Your task to perform on an android device: Search for "alienware aurora" on ebay.com, select the first entry, add it to the cart, then select checkout. Image 0: 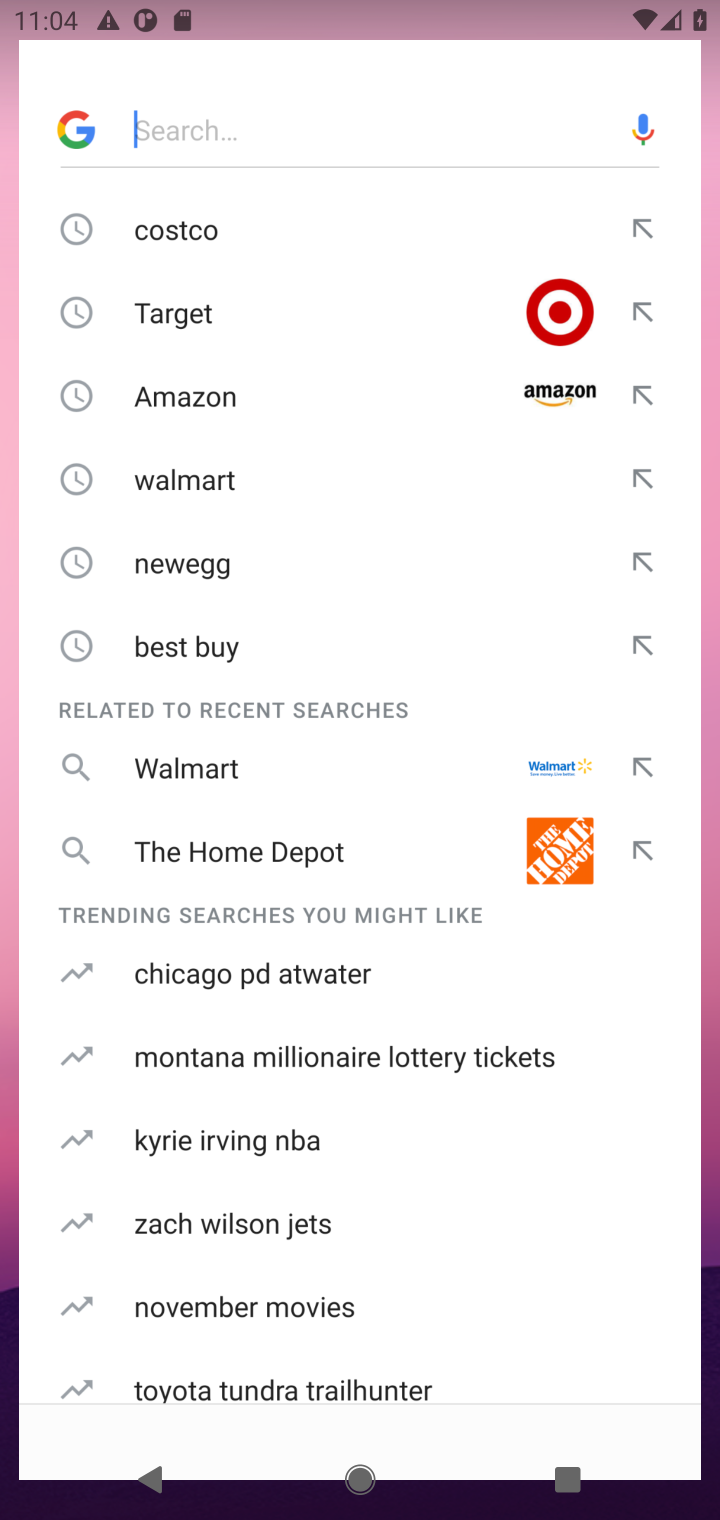
Step 0: drag from (434, 1303) to (314, 356)
Your task to perform on an android device: Search for "alienware aurora" on ebay.com, select the first entry, add it to the cart, then select checkout. Image 1: 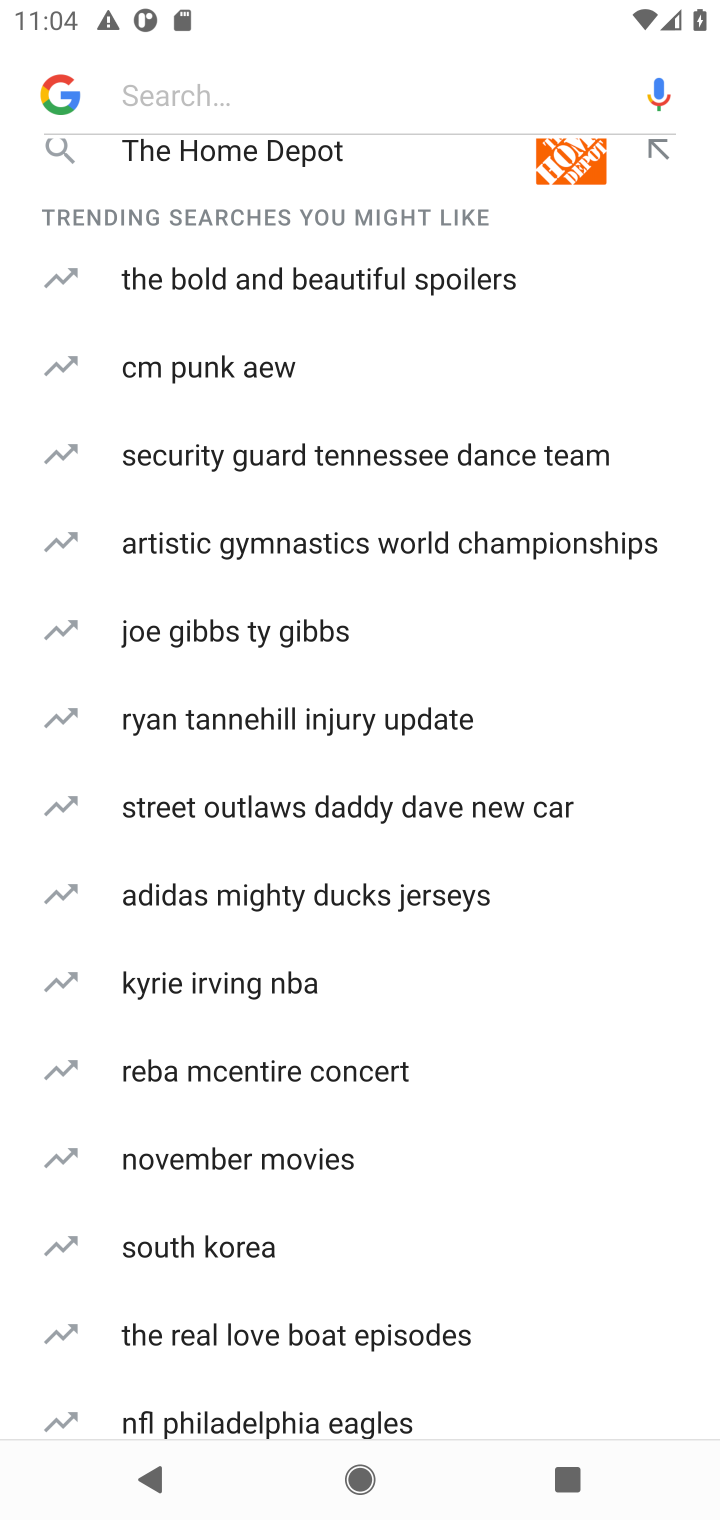
Step 1: press home button
Your task to perform on an android device: Search for "alienware aurora" on ebay.com, select the first entry, add it to the cart, then select checkout. Image 2: 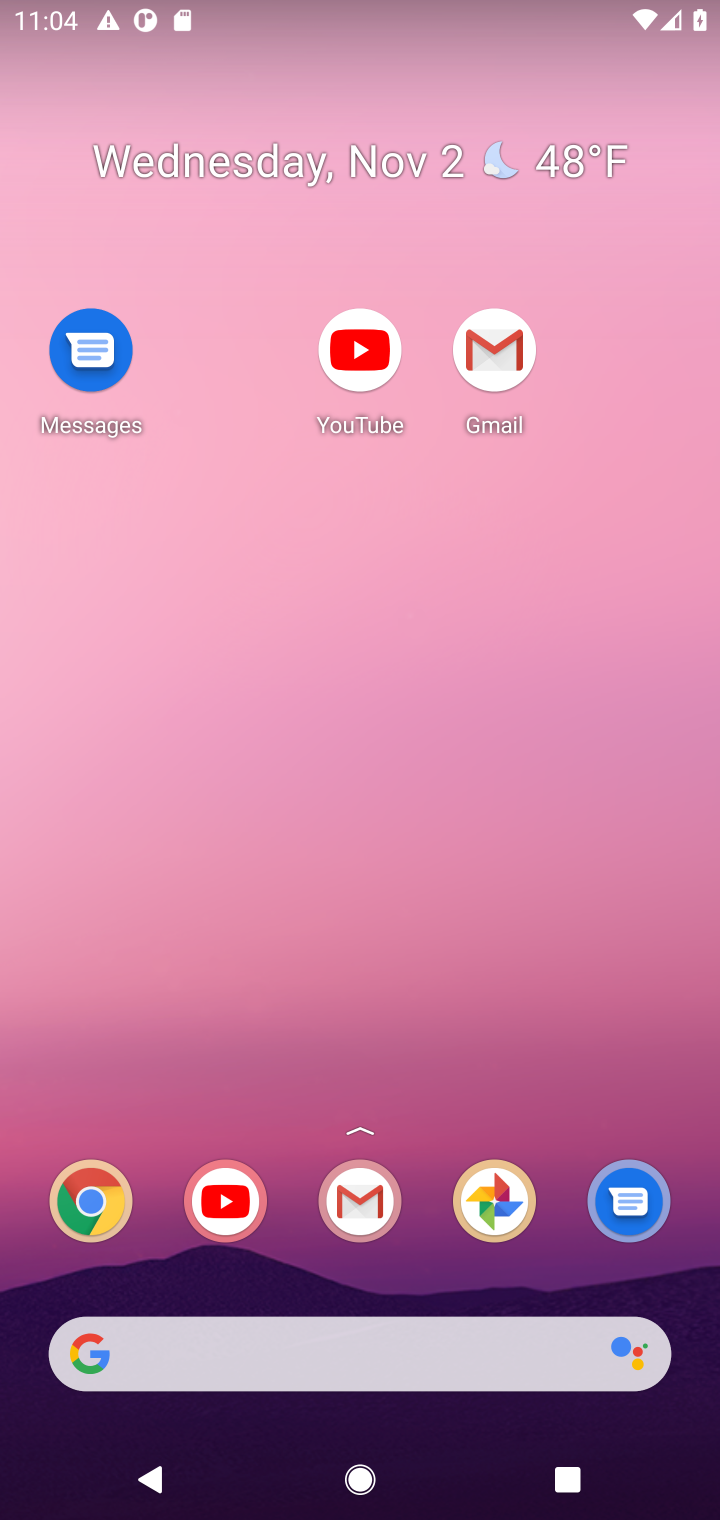
Step 2: drag from (426, 1217) to (422, 204)
Your task to perform on an android device: Search for "alienware aurora" on ebay.com, select the first entry, add it to the cart, then select checkout. Image 3: 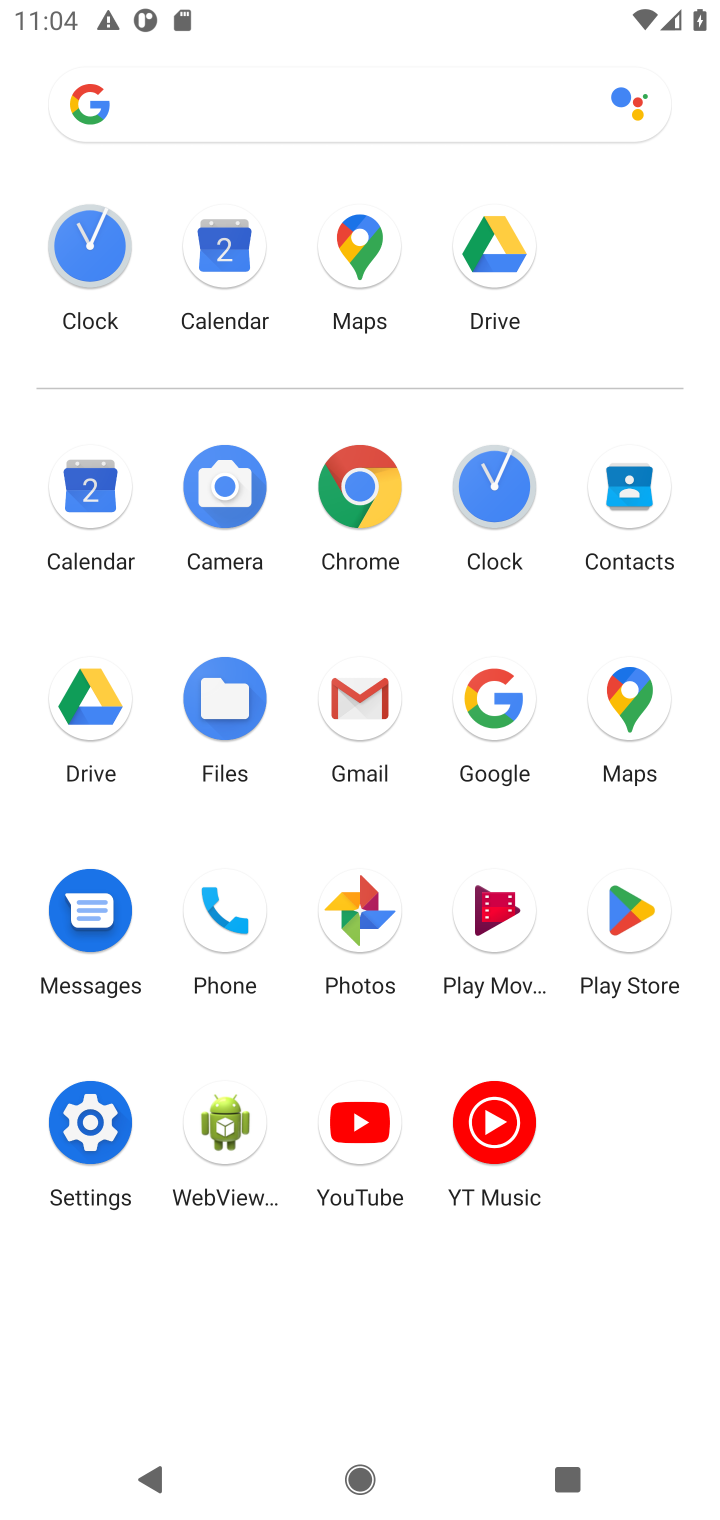
Step 3: click (355, 480)
Your task to perform on an android device: Search for "alienware aurora" on ebay.com, select the first entry, add it to the cart, then select checkout. Image 4: 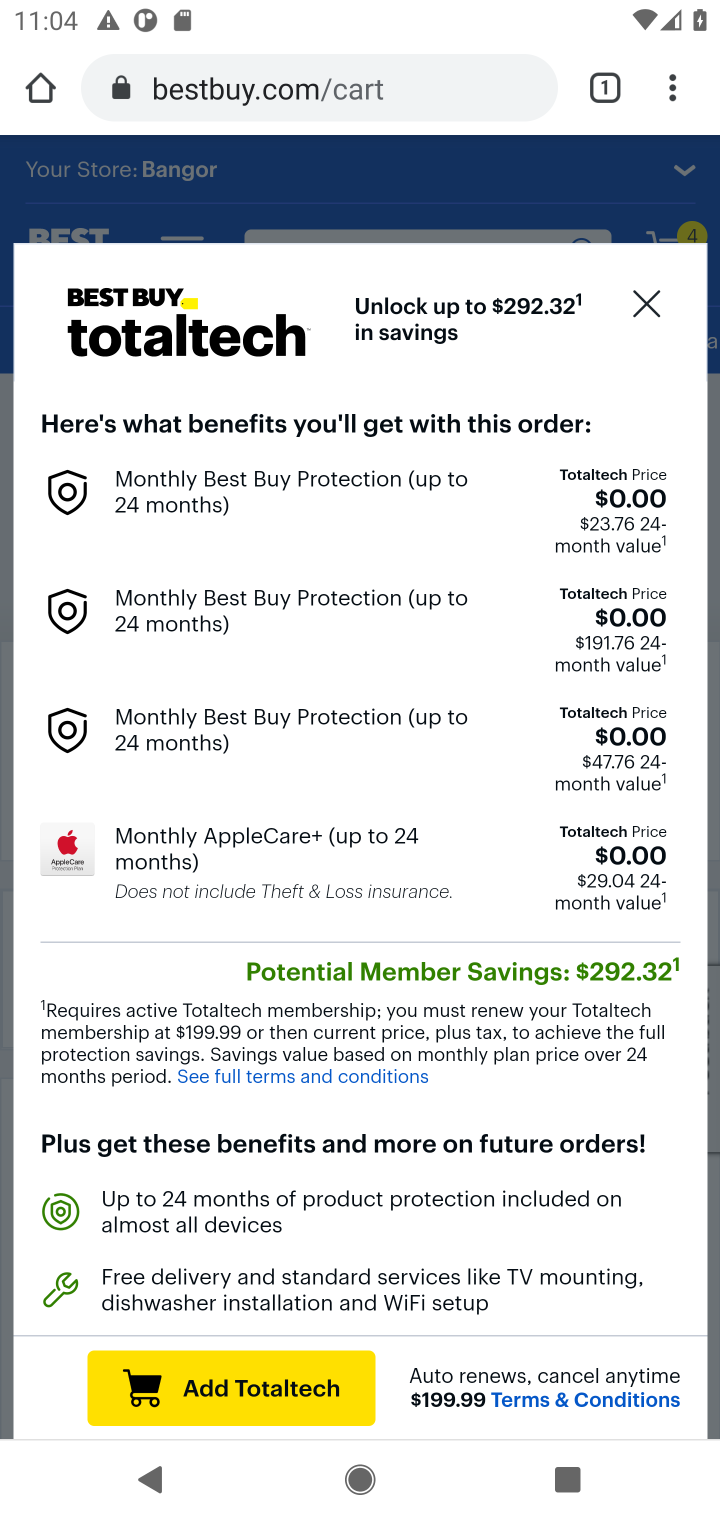
Step 4: click (414, 96)
Your task to perform on an android device: Search for "alienware aurora" on ebay.com, select the first entry, add it to the cart, then select checkout. Image 5: 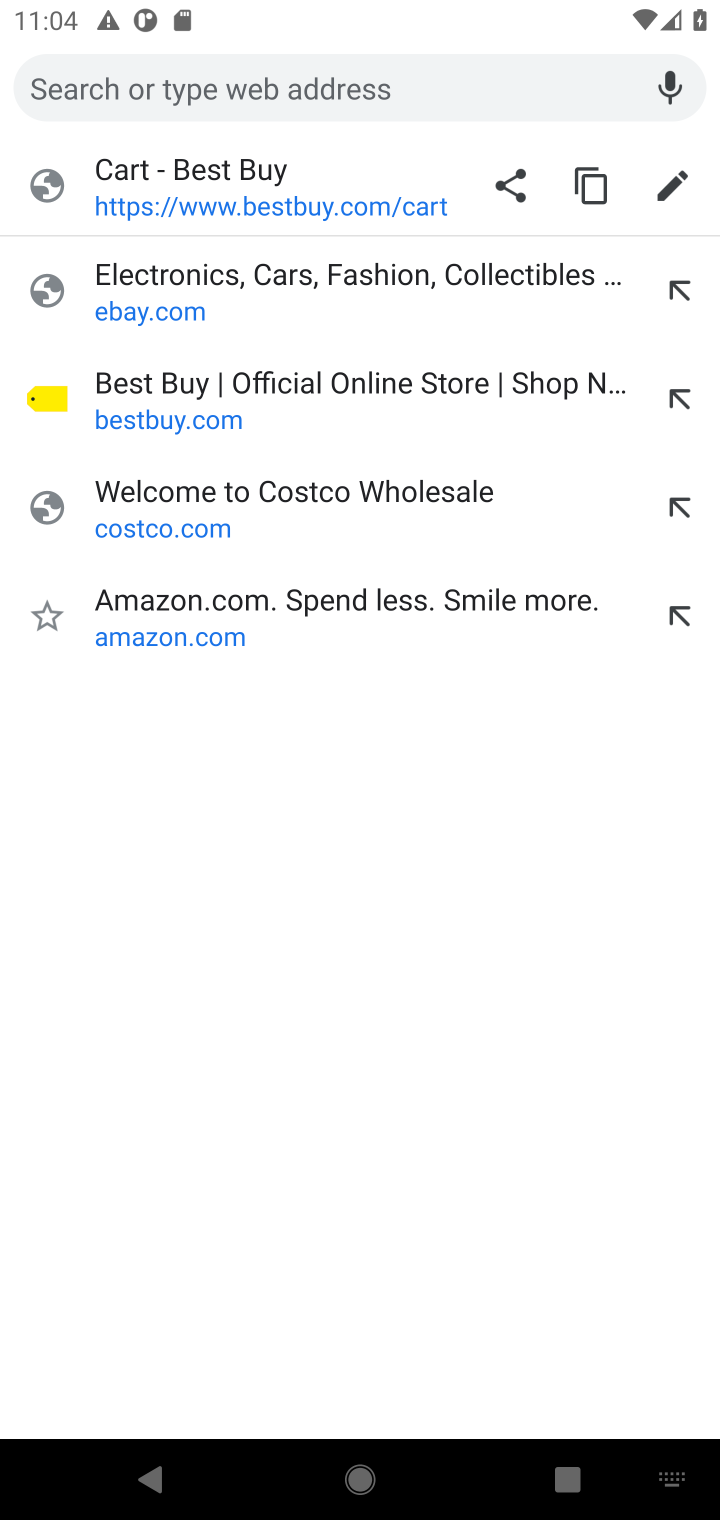
Step 5: type "ebay.com"
Your task to perform on an android device: Search for "alienware aurora" on ebay.com, select the first entry, add it to the cart, then select checkout. Image 6: 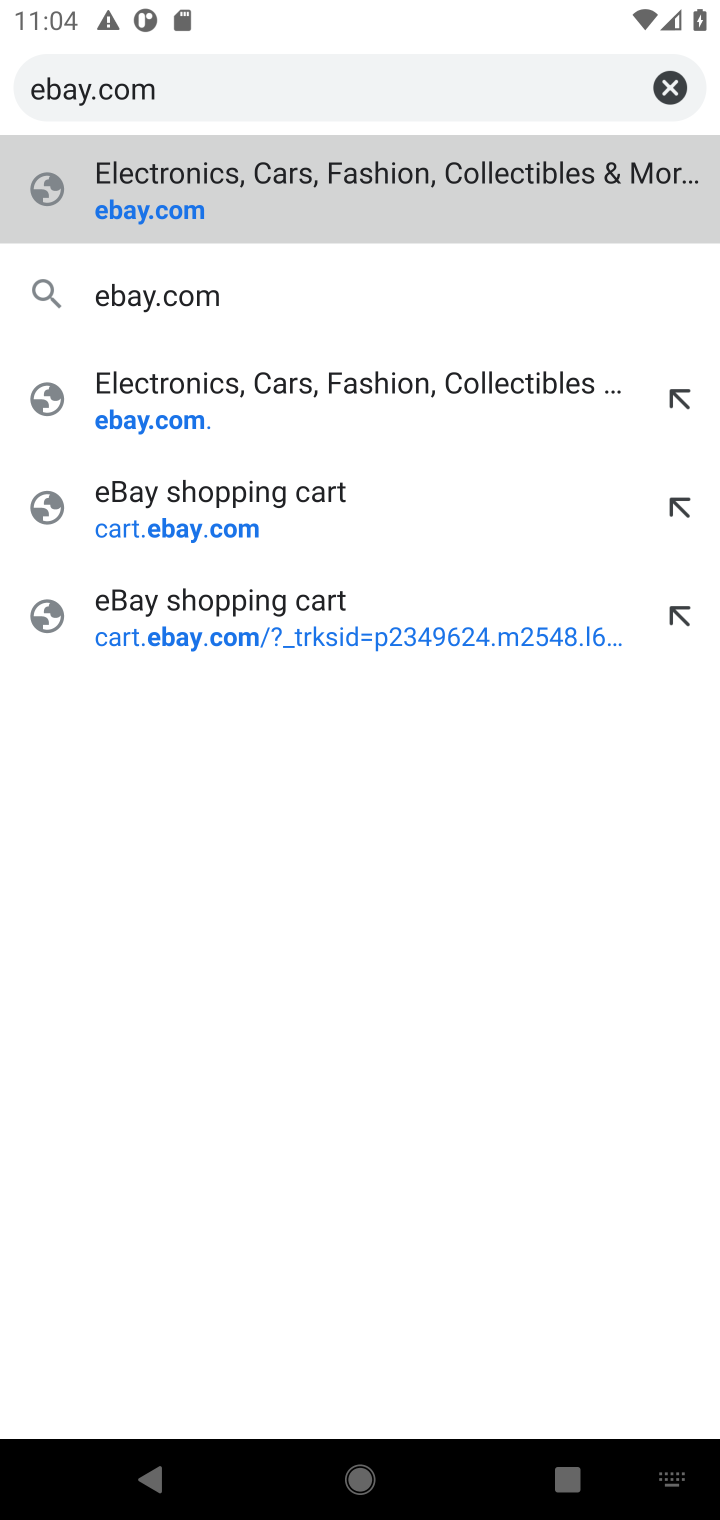
Step 6: press enter
Your task to perform on an android device: Search for "alienware aurora" on ebay.com, select the first entry, add it to the cart, then select checkout. Image 7: 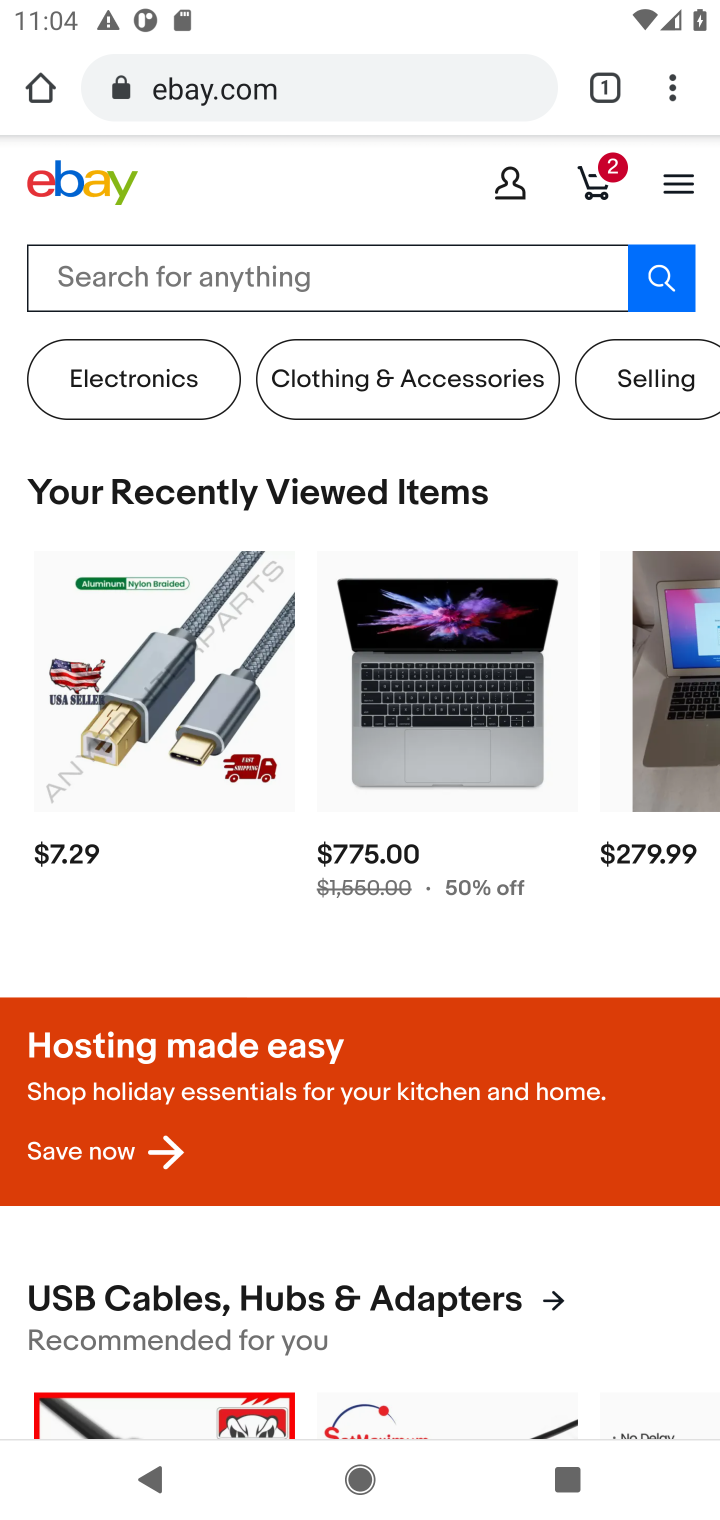
Step 7: click (435, 274)
Your task to perform on an android device: Search for "alienware aurora" on ebay.com, select the first entry, add it to the cart, then select checkout. Image 8: 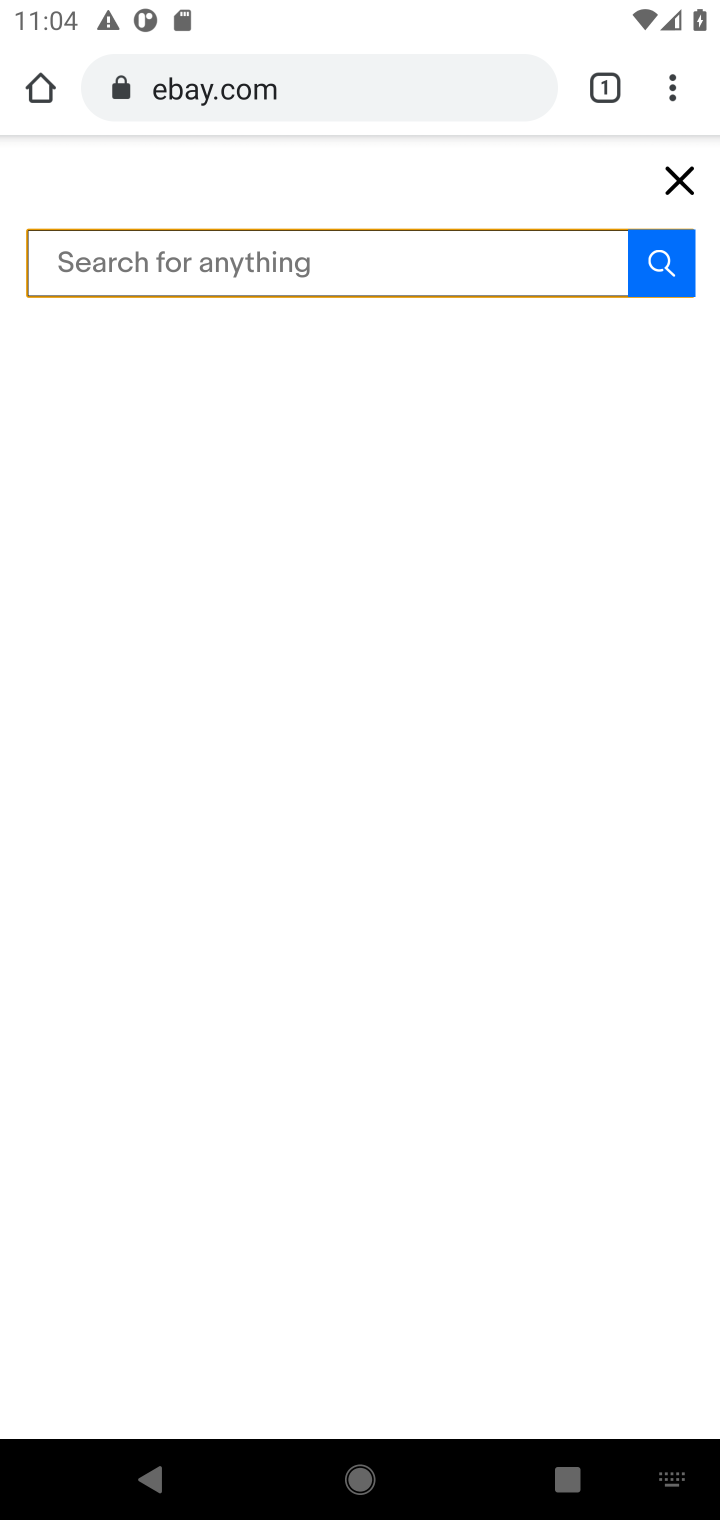
Step 8: type "alienware  aurora"
Your task to perform on an android device: Search for "alienware aurora" on ebay.com, select the first entry, add it to the cart, then select checkout. Image 9: 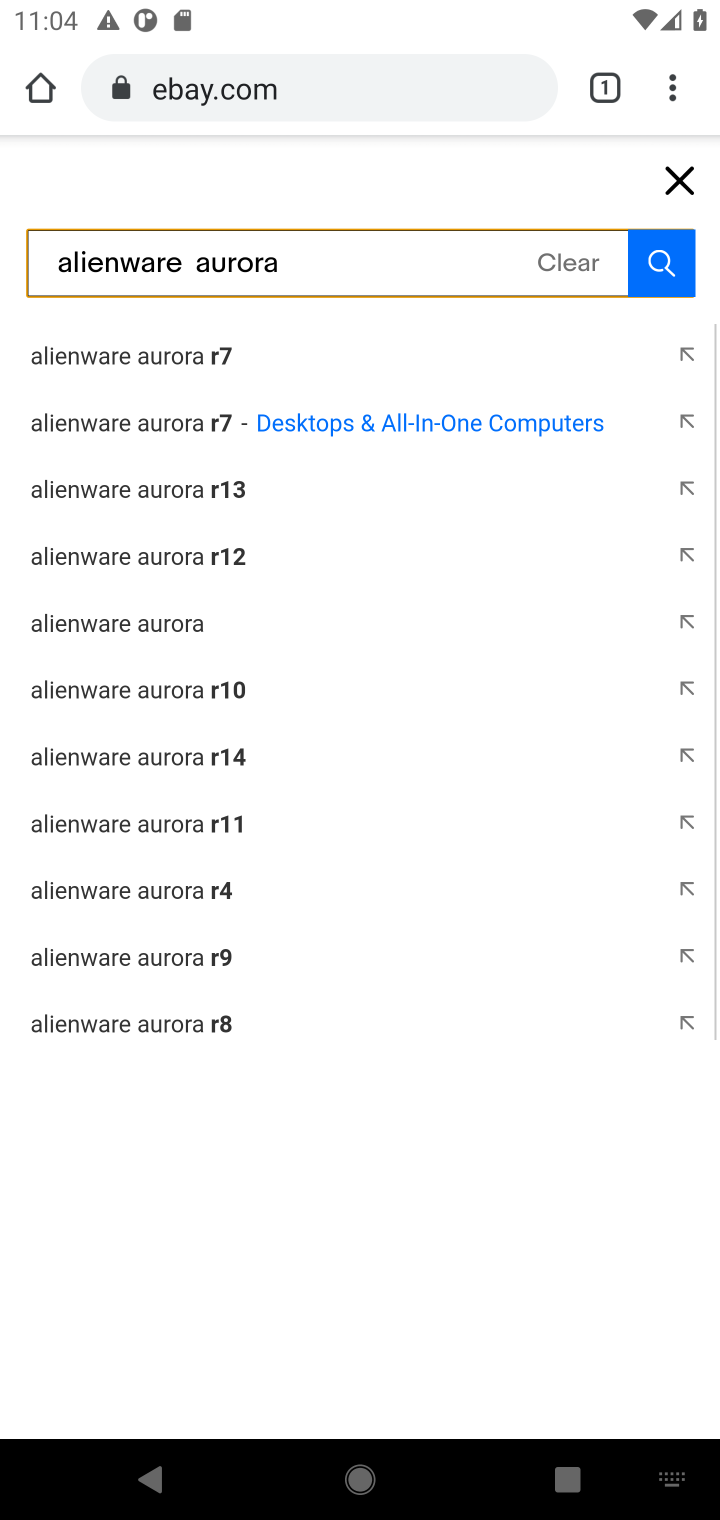
Step 9: press enter
Your task to perform on an android device: Search for "alienware aurora" on ebay.com, select the first entry, add it to the cart, then select checkout. Image 10: 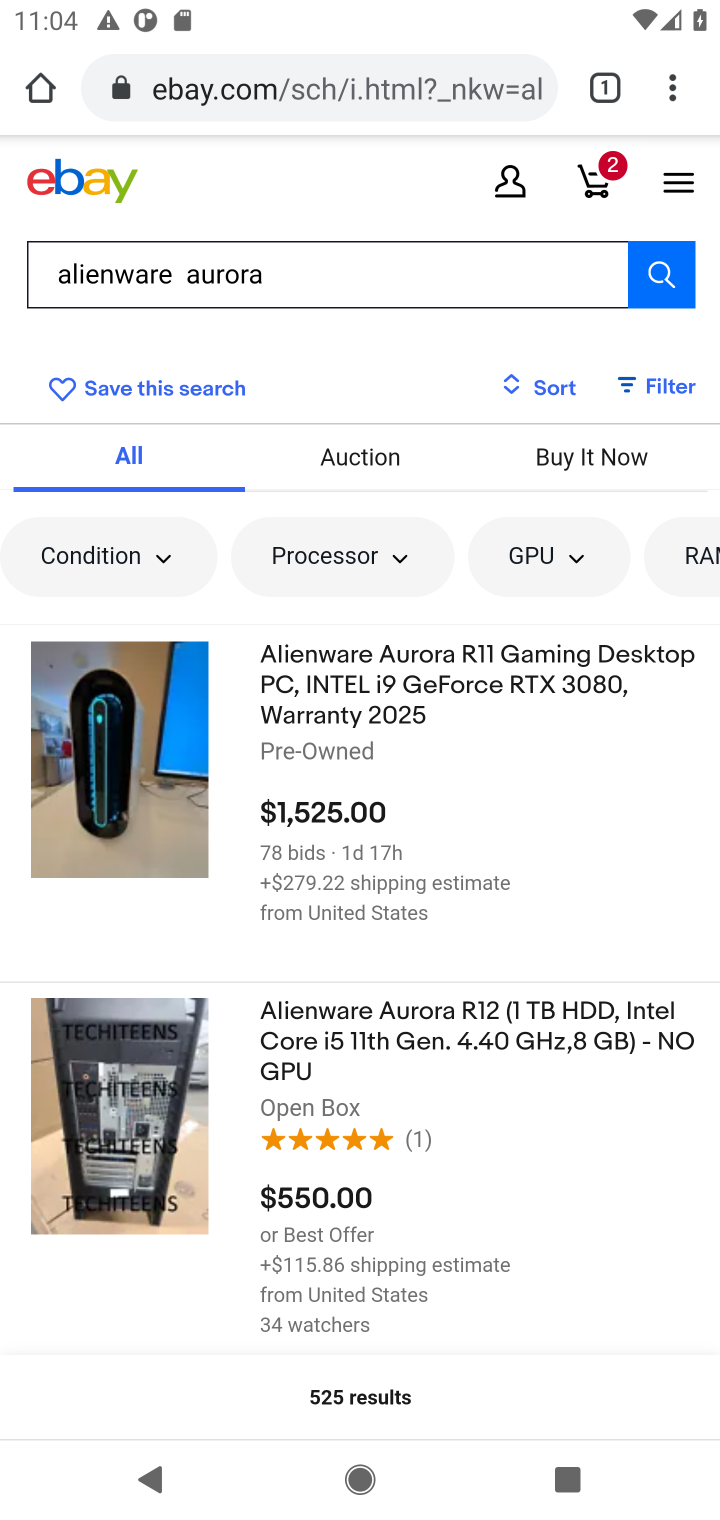
Step 10: click (290, 697)
Your task to perform on an android device: Search for "alienware aurora" on ebay.com, select the first entry, add it to the cart, then select checkout. Image 11: 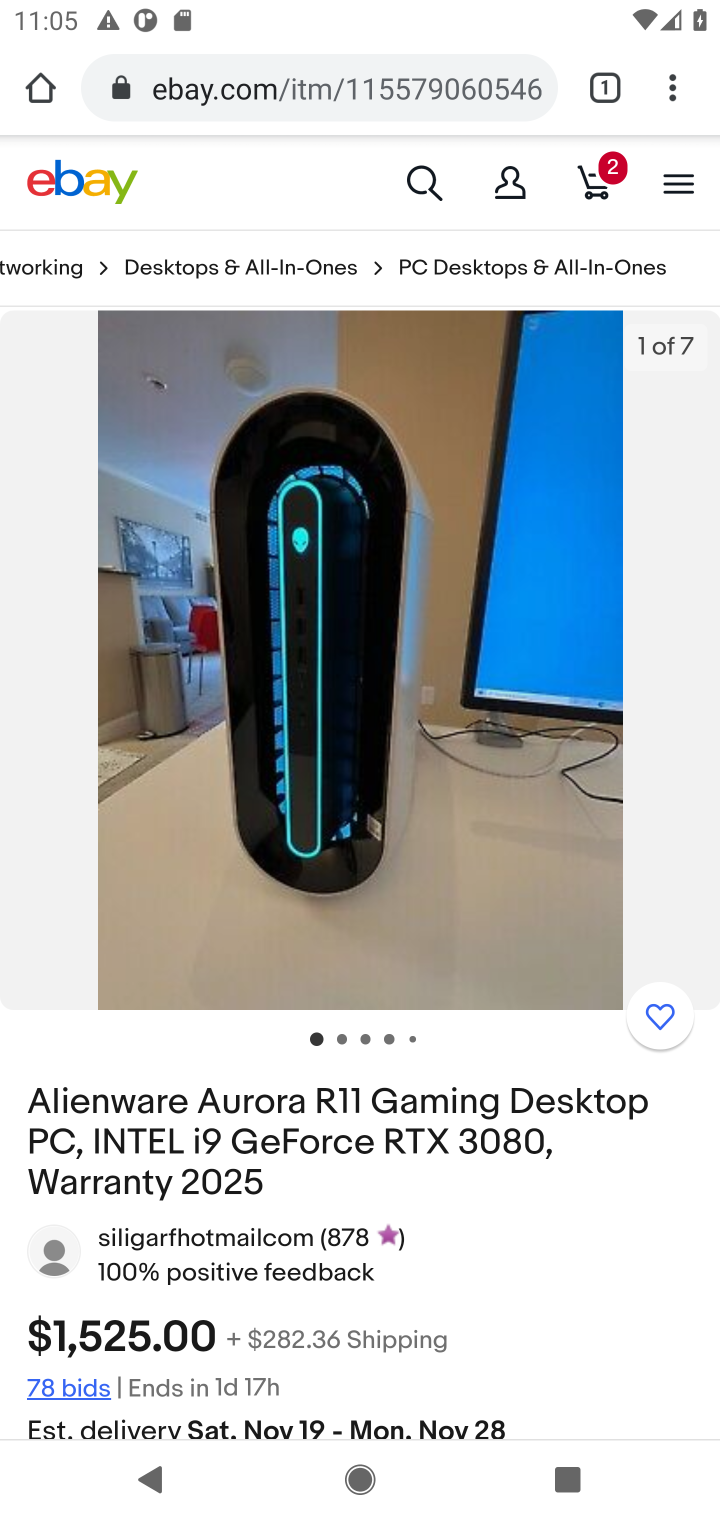
Step 11: drag from (414, 889) to (444, 327)
Your task to perform on an android device: Search for "alienware aurora" on ebay.com, select the first entry, add it to the cart, then select checkout. Image 12: 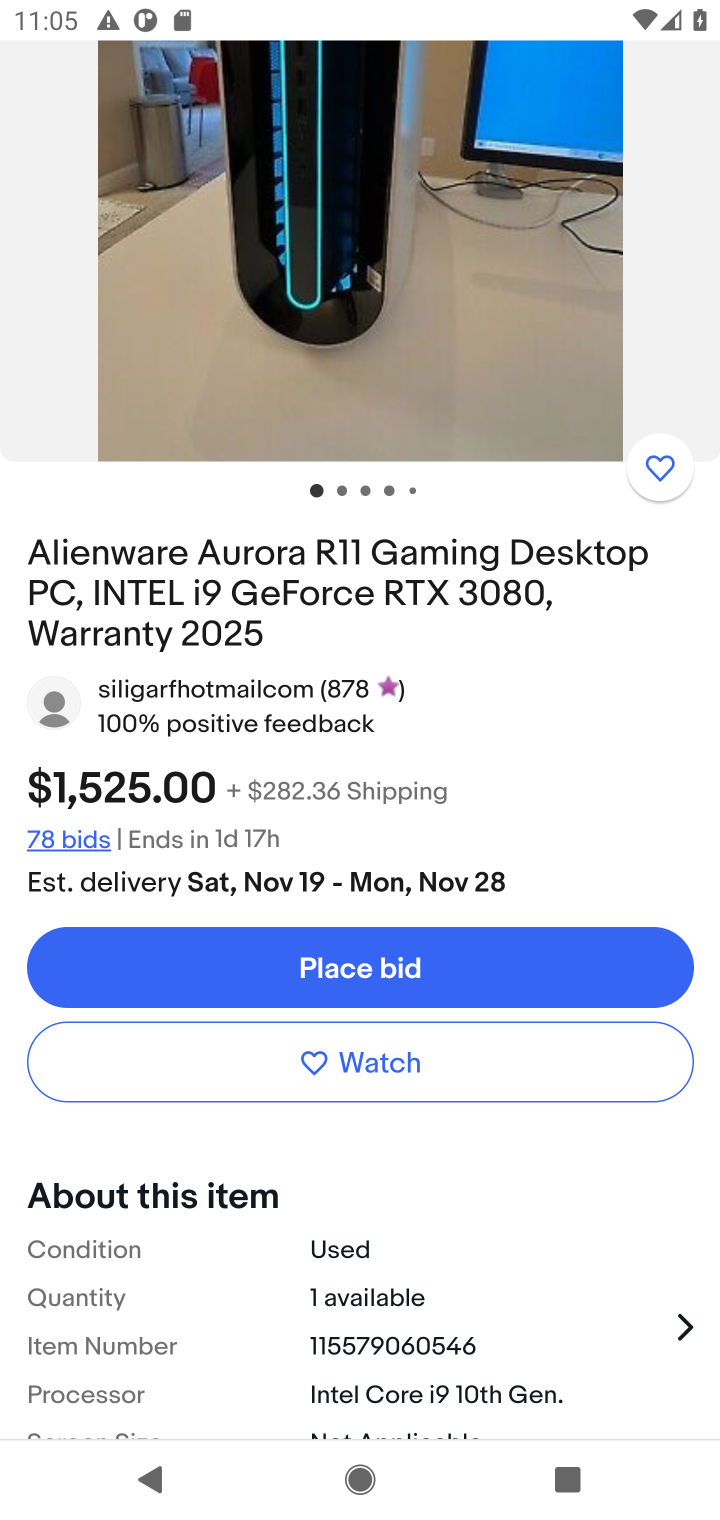
Step 12: click (457, 971)
Your task to perform on an android device: Search for "alienware aurora" on ebay.com, select the first entry, add it to the cart, then select checkout. Image 13: 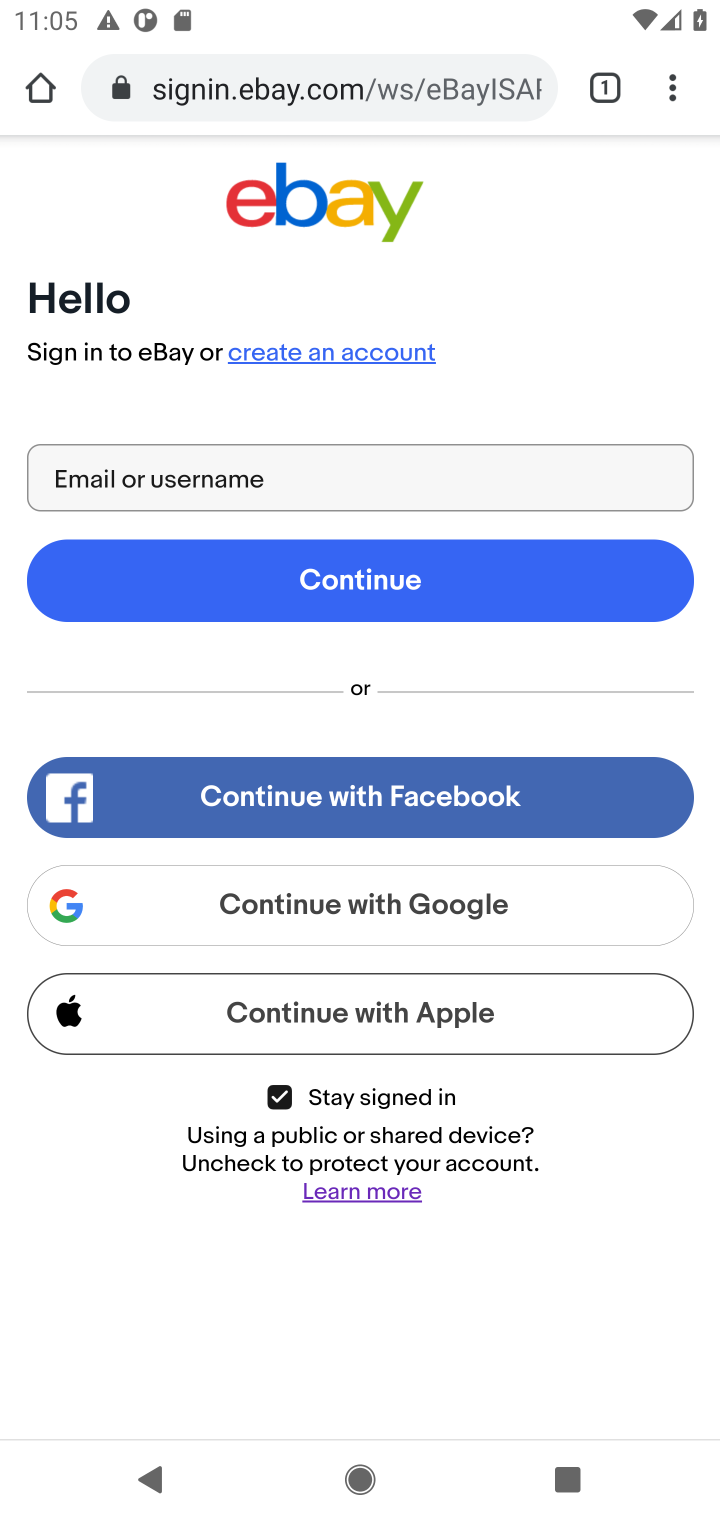
Step 13: task complete